Your task to perform on an android device: delete a single message in the gmail app Image 0: 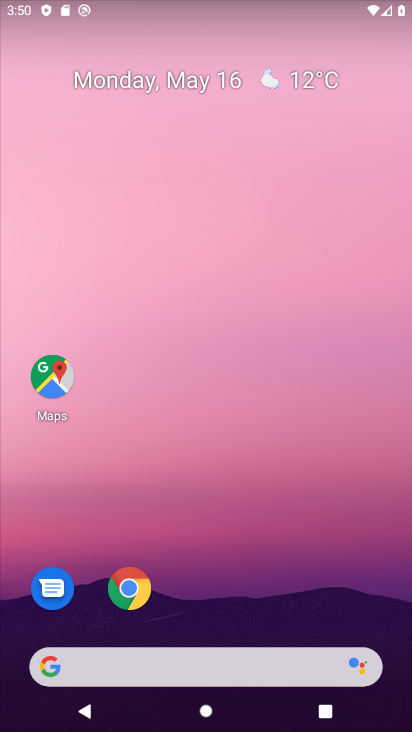
Step 0: drag from (236, 583) to (223, 171)
Your task to perform on an android device: delete a single message in the gmail app Image 1: 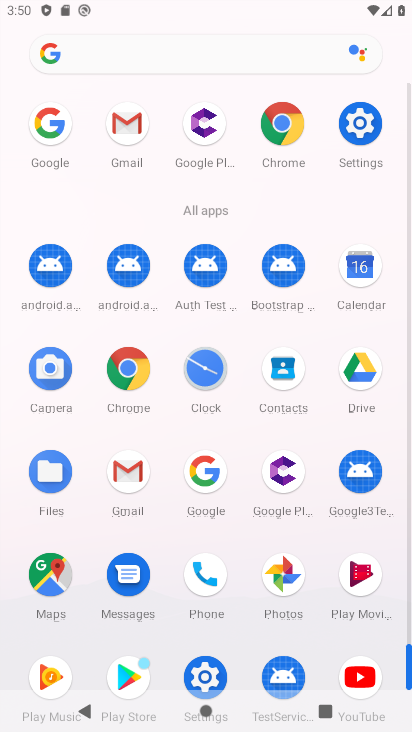
Step 1: click (137, 118)
Your task to perform on an android device: delete a single message in the gmail app Image 2: 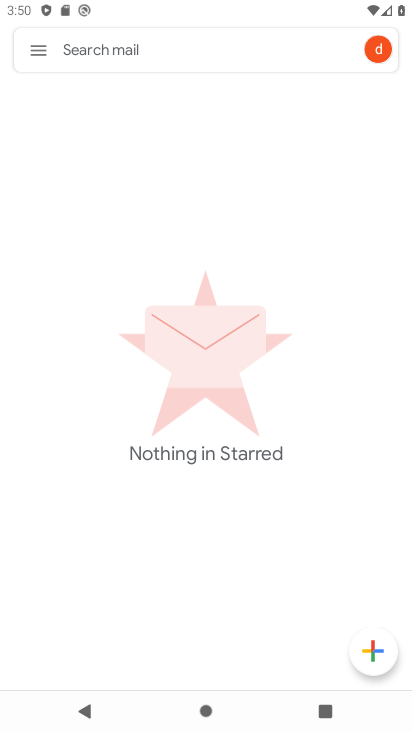
Step 2: click (38, 55)
Your task to perform on an android device: delete a single message in the gmail app Image 3: 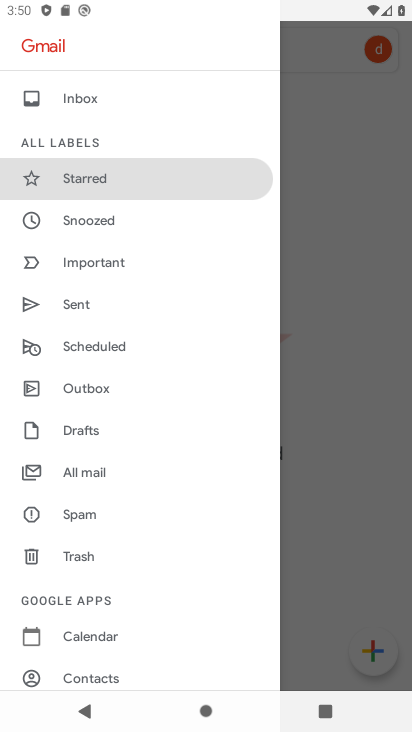
Step 3: click (97, 92)
Your task to perform on an android device: delete a single message in the gmail app Image 4: 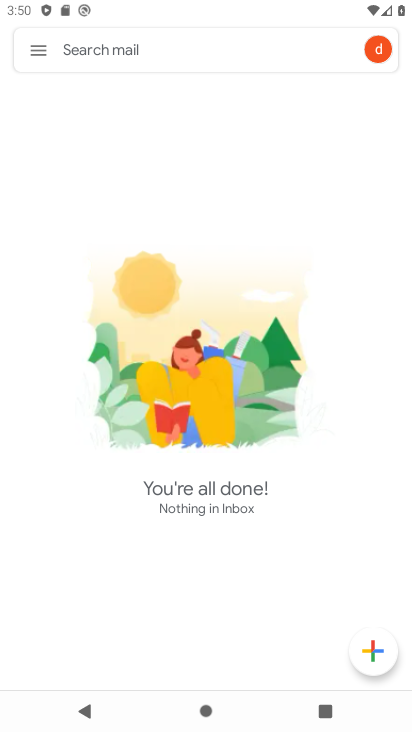
Step 4: click (25, 40)
Your task to perform on an android device: delete a single message in the gmail app Image 5: 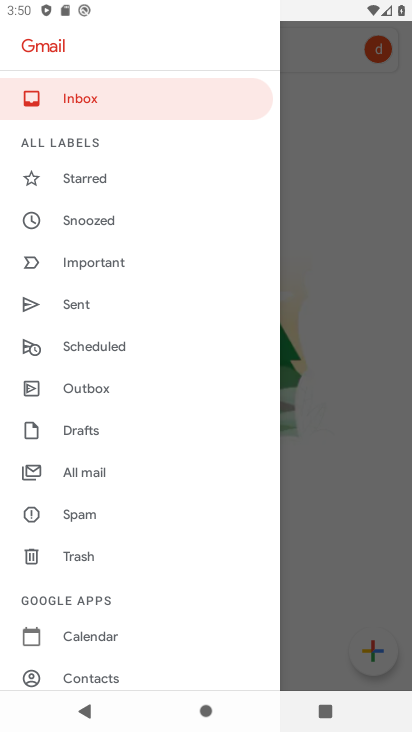
Step 5: click (55, 462)
Your task to perform on an android device: delete a single message in the gmail app Image 6: 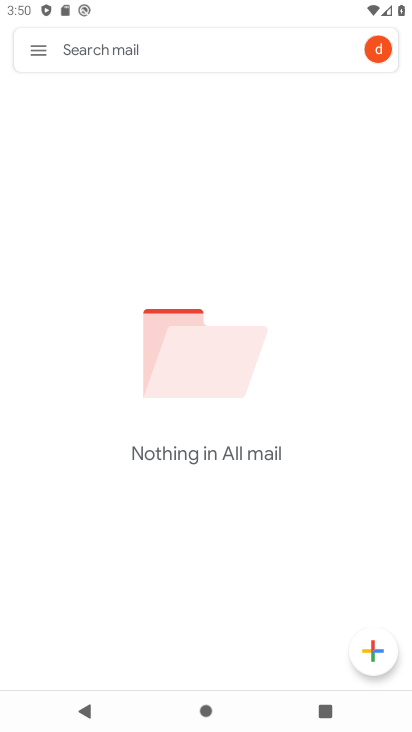
Step 6: click (38, 53)
Your task to perform on an android device: delete a single message in the gmail app Image 7: 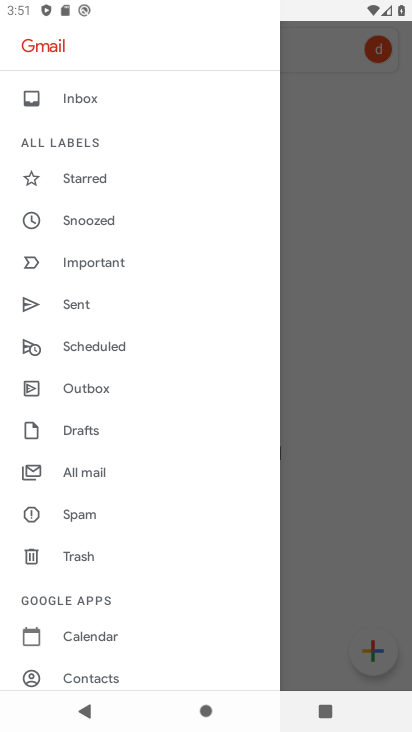
Step 7: drag from (180, 290) to (157, 105)
Your task to perform on an android device: delete a single message in the gmail app Image 8: 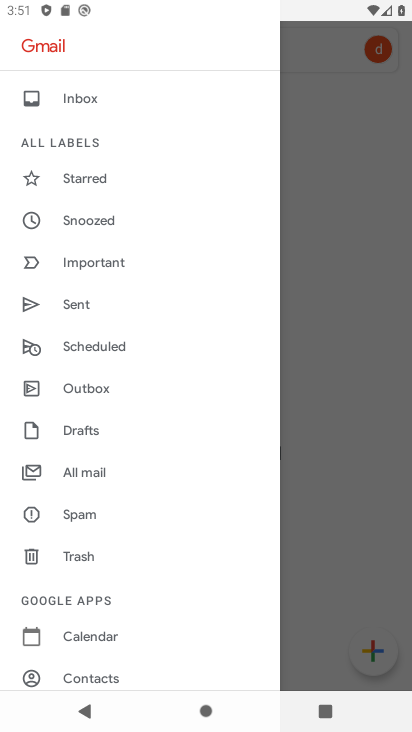
Step 8: drag from (132, 620) to (127, 292)
Your task to perform on an android device: delete a single message in the gmail app Image 9: 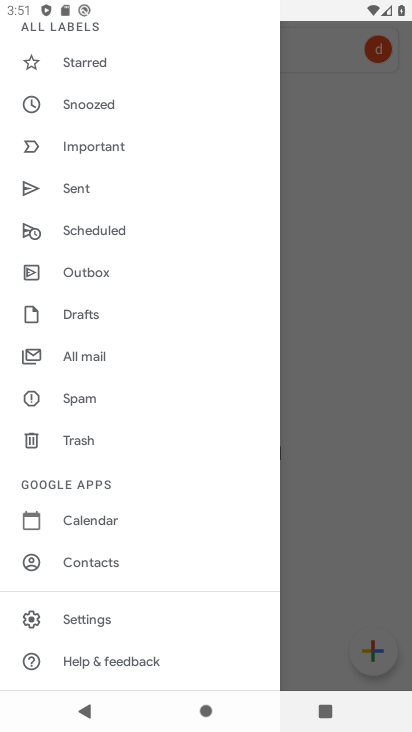
Step 9: click (124, 617)
Your task to perform on an android device: delete a single message in the gmail app Image 10: 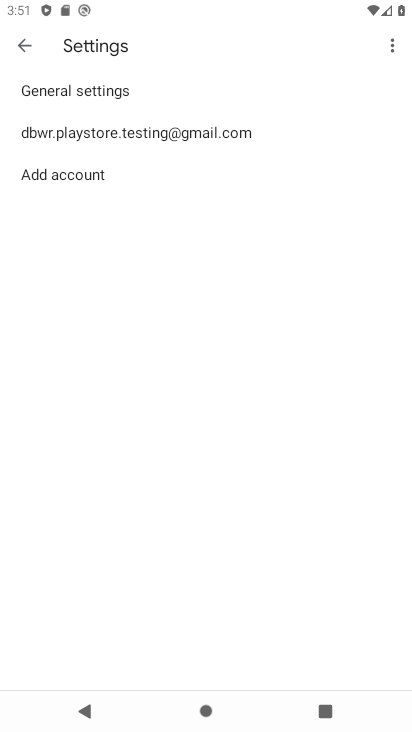
Step 10: task complete